Your task to perform on an android device: turn on wifi Image 0: 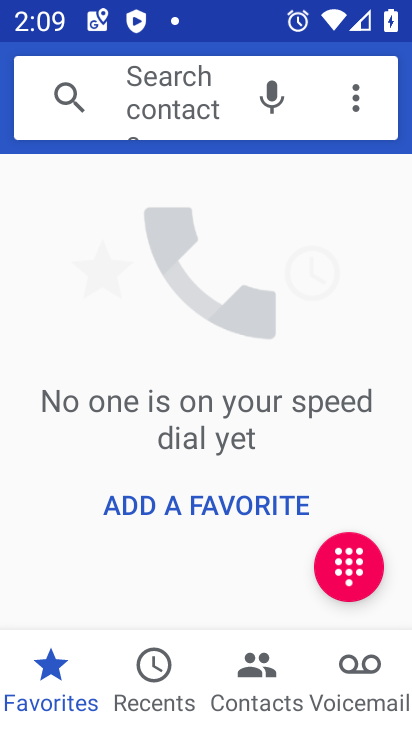
Step 0: press home button
Your task to perform on an android device: turn on wifi Image 1: 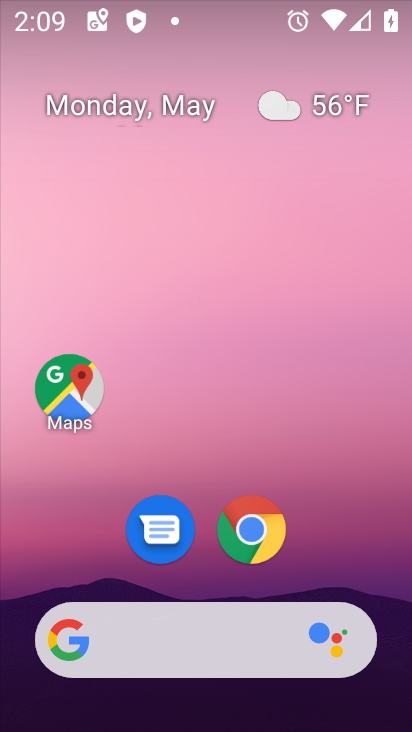
Step 1: drag from (219, 584) to (331, 79)
Your task to perform on an android device: turn on wifi Image 2: 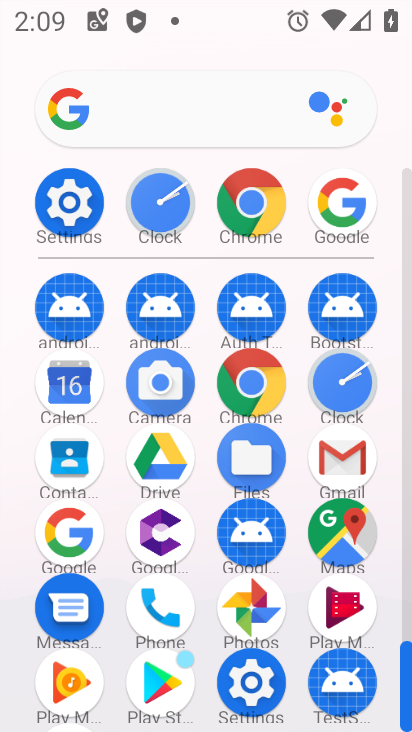
Step 2: click (66, 212)
Your task to perform on an android device: turn on wifi Image 3: 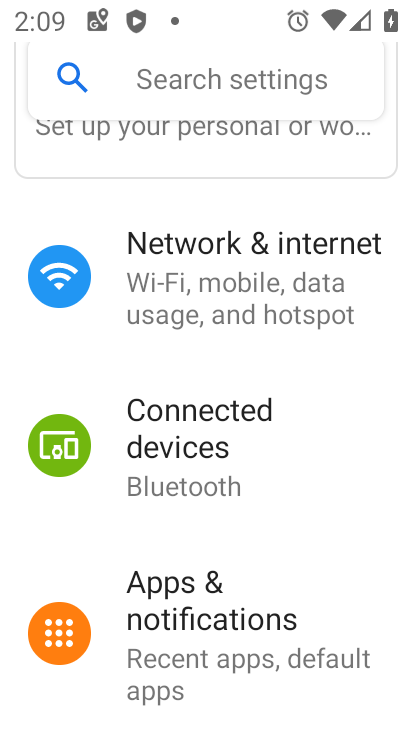
Step 3: click (148, 288)
Your task to perform on an android device: turn on wifi Image 4: 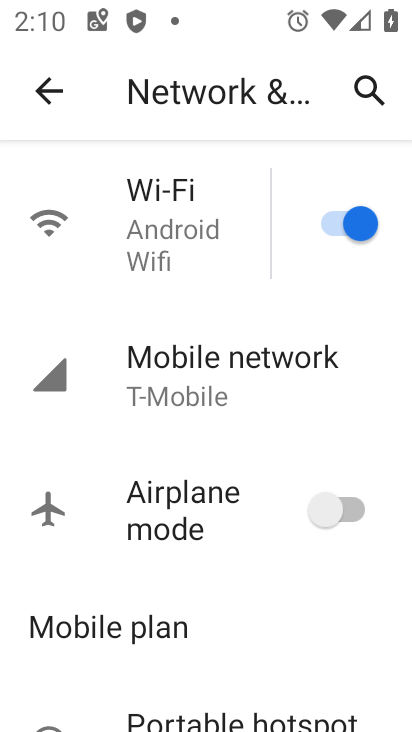
Step 4: task complete